Your task to perform on an android device: Show the shopping cart on amazon.com. Search for "dell xps" on amazon.com, select the first entry, and add it to the cart. Image 0: 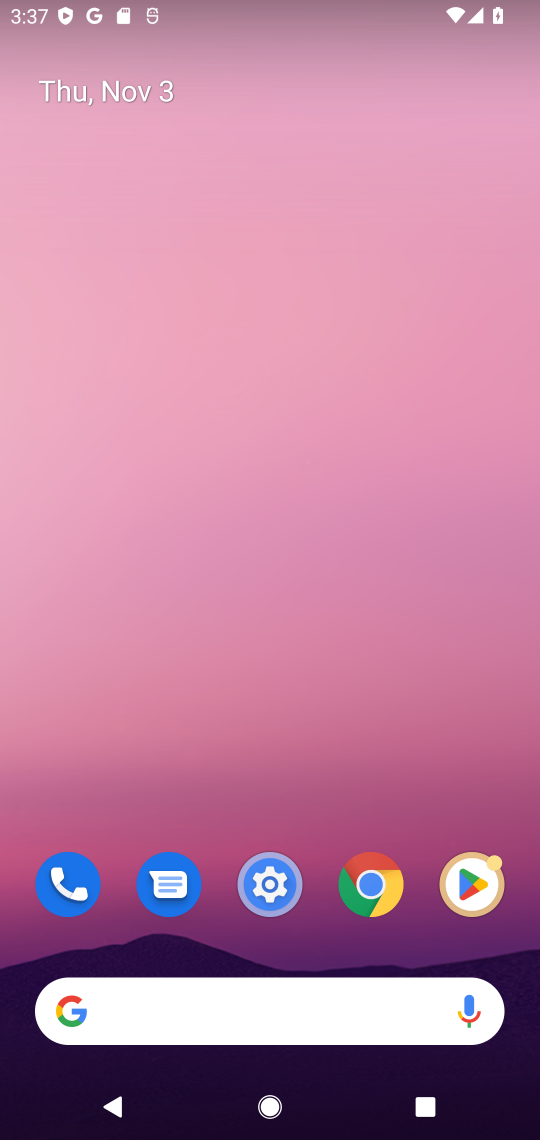
Step 0: press home button
Your task to perform on an android device: Show the shopping cart on amazon.com. Search for "dell xps" on amazon.com, select the first entry, and add it to the cart. Image 1: 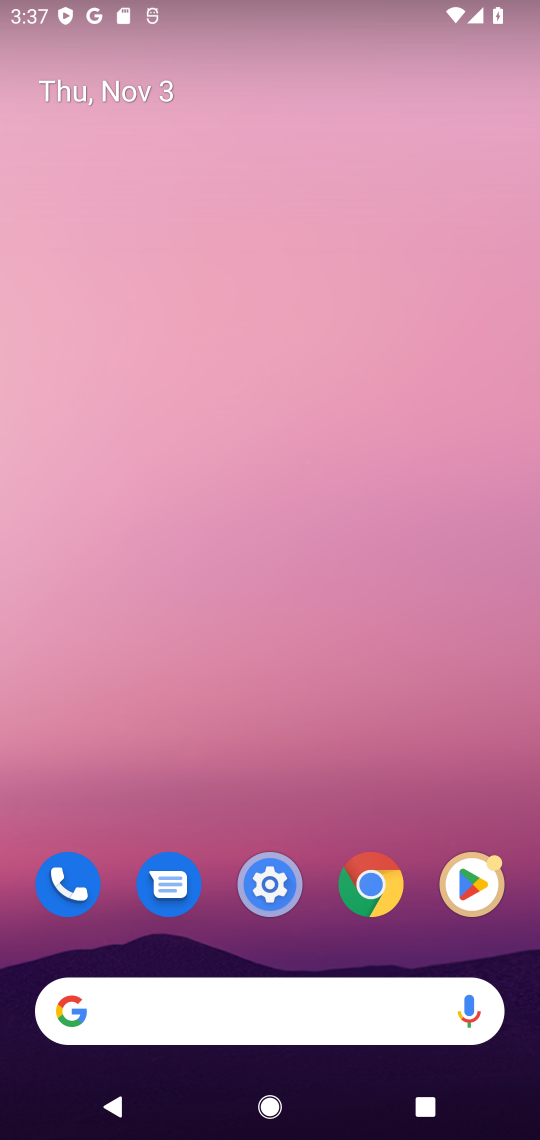
Step 1: click (102, 1006)
Your task to perform on an android device: Show the shopping cart on amazon.com. Search for "dell xps" on amazon.com, select the first entry, and add it to the cart. Image 2: 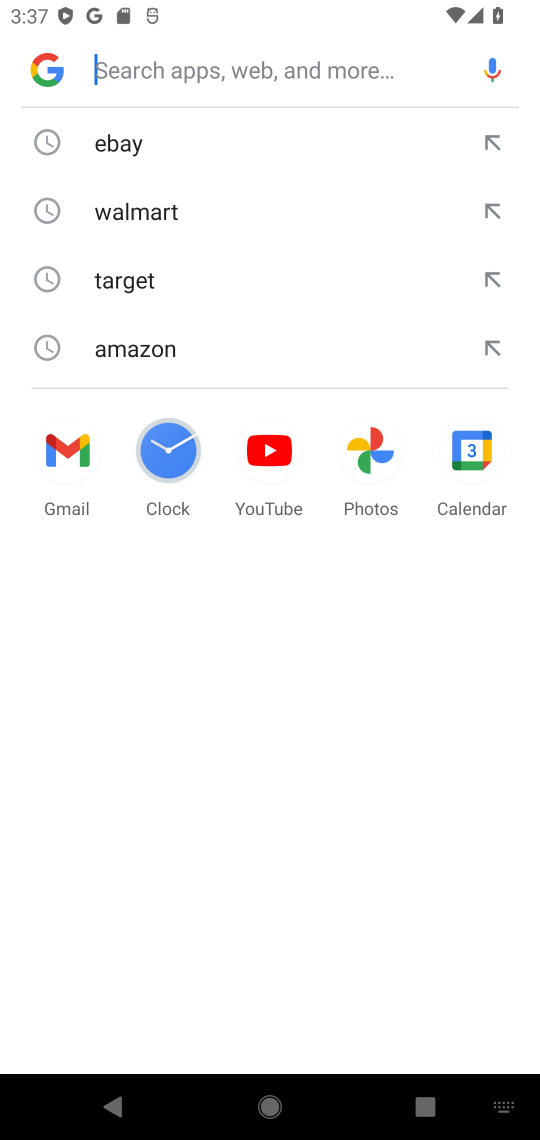
Step 2: type " amazon.com"
Your task to perform on an android device: Show the shopping cart on amazon.com. Search for "dell xps" on amazon.com, select the first entry, and add it to the cart. Image 3: 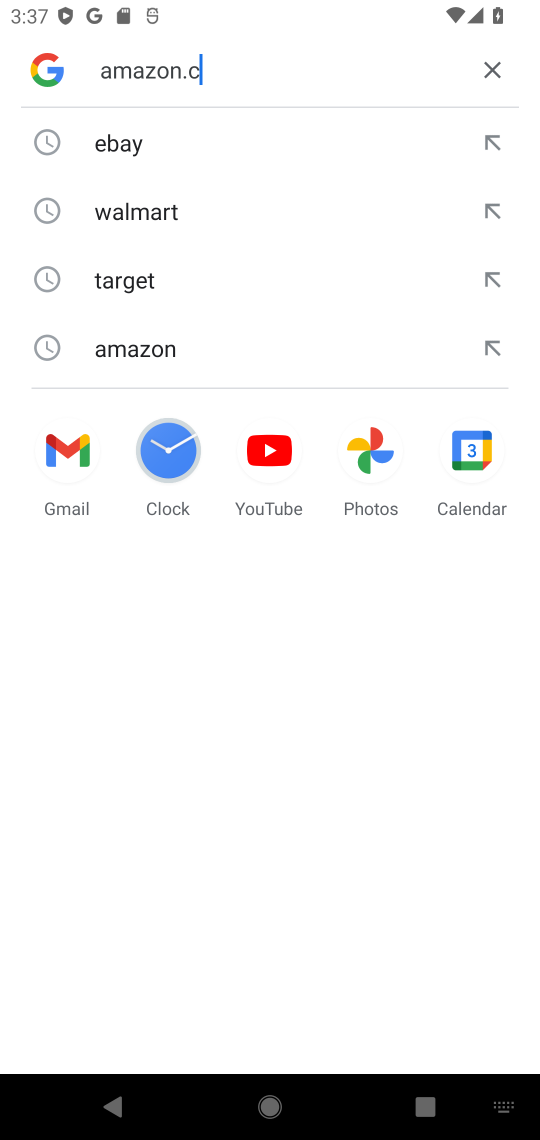
Step 3: press enter
Your task to perform on an android device: Show the shopping cart on amazon.com. Search for "dell xps" on amazon.com, select the first entry, and add it to the cart. Image 4: 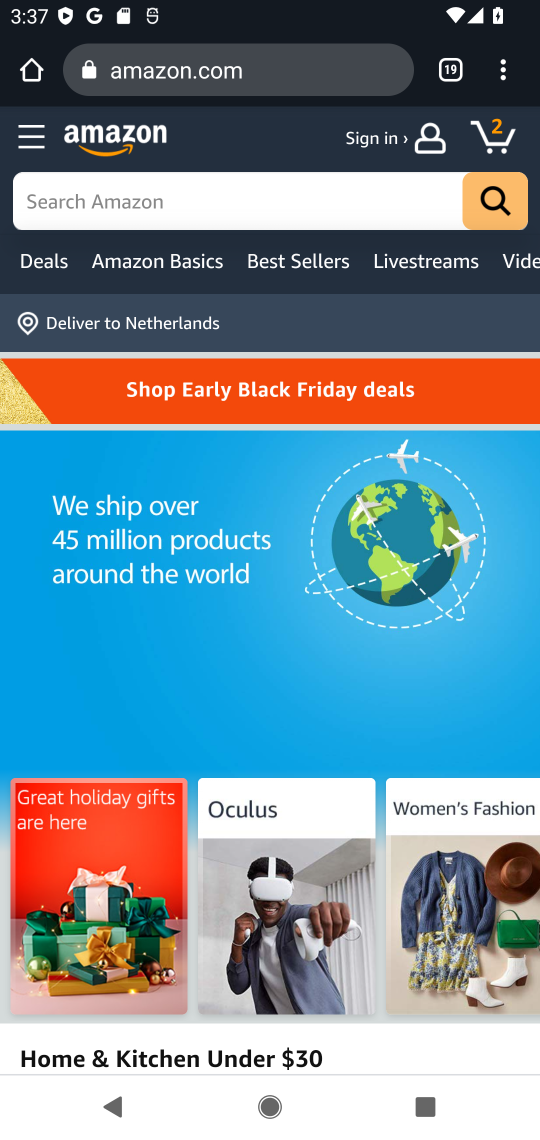
Step 4: click (492, 133)
Your task to perform on an android device: Show the shopping cart on amazon.com. Search for "dell xps" on amazon.com, select the first entry, and add it to the cart. Image 5: 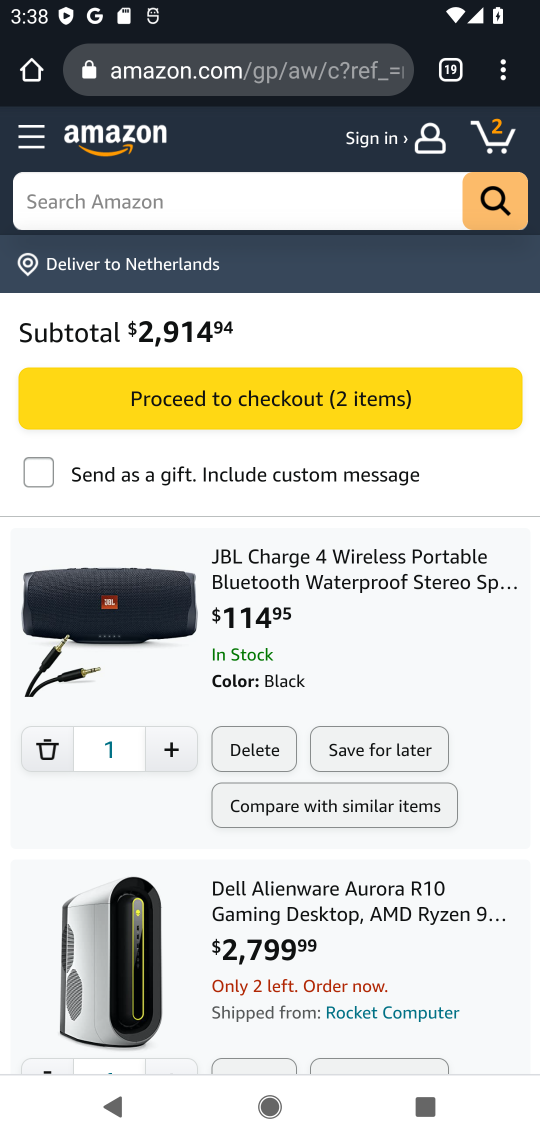
Step 5: click (56, 201)
Your task to perform on an android device: Show the shopping cart on amazon.com. Search for "dell xps" on amazon.com, select the first entry, and add it to the cart. Image 6: 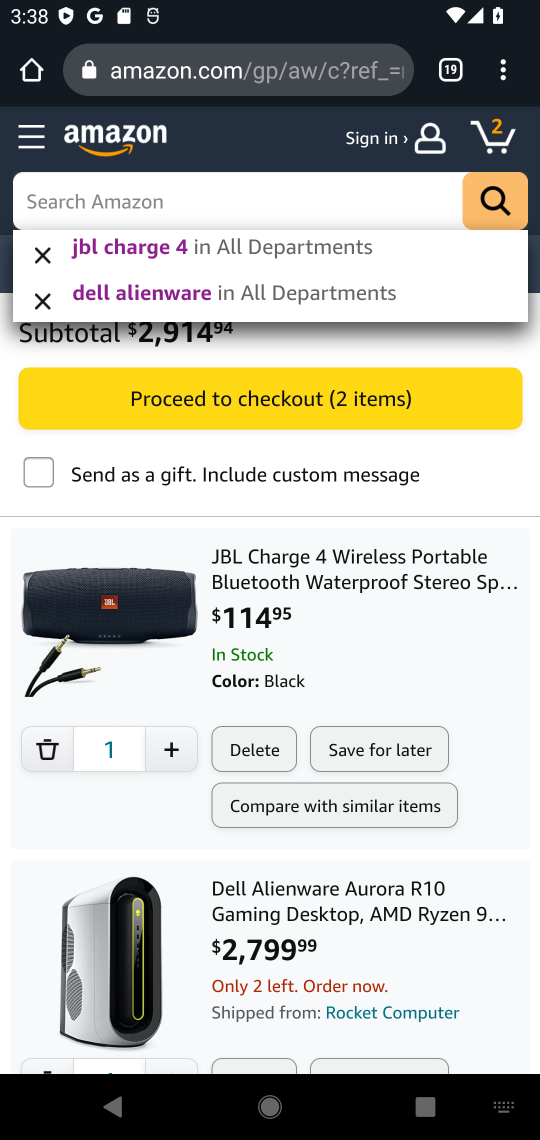
Step 6: type "dell xps"
Your task to perform on an android device: Show the shopping cart on amazon.com. Search for "dell xps" on amazon.com, select the first entry, and add it to the cart. Image 7: 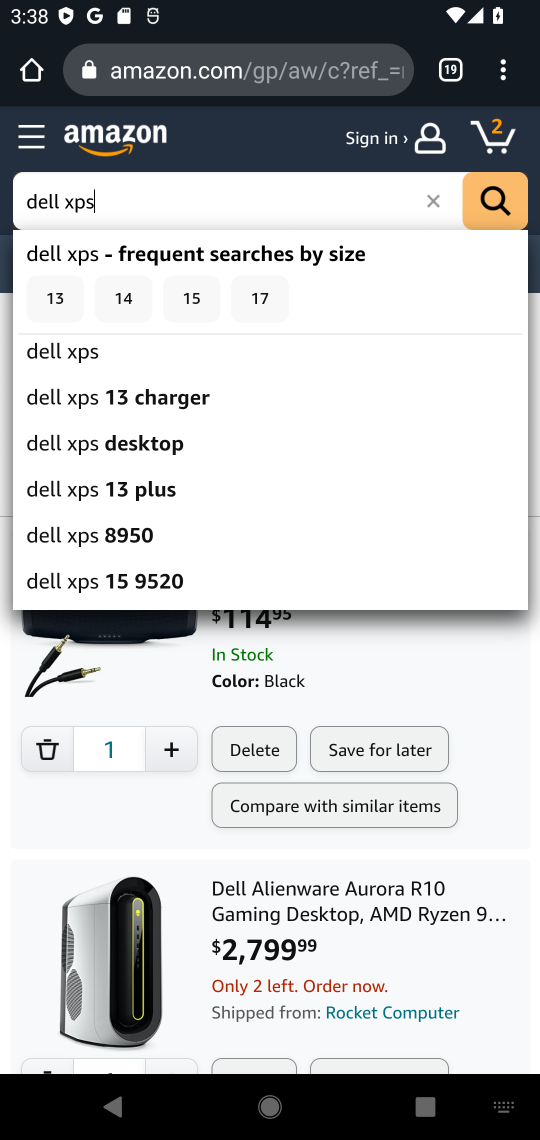
Step 7: click (489, 196)
Your task to perform on an android device: Show the shopping cart on amazon.com. Search for "dell xps" on amazon.com, select the first entry, and add it to the cart. Image 8: 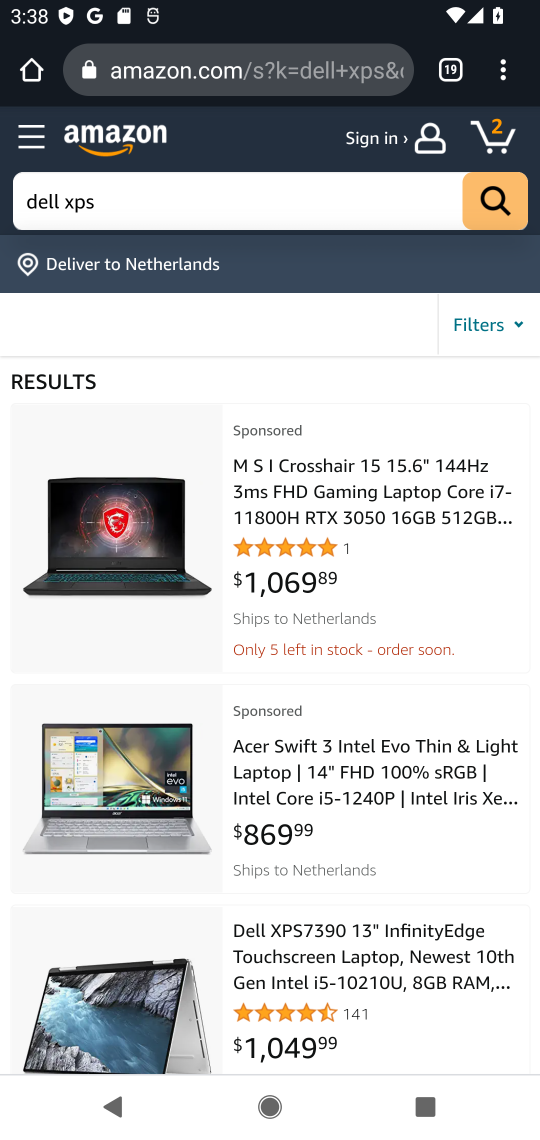
Step 8: drag from (364, 954) to (376, 515)
Your task to perform on an android device: Show the shopping cart on amazon.com. Search for "dell xps" on amazon.com, select the first entry, and add it to the cart. Image 9: 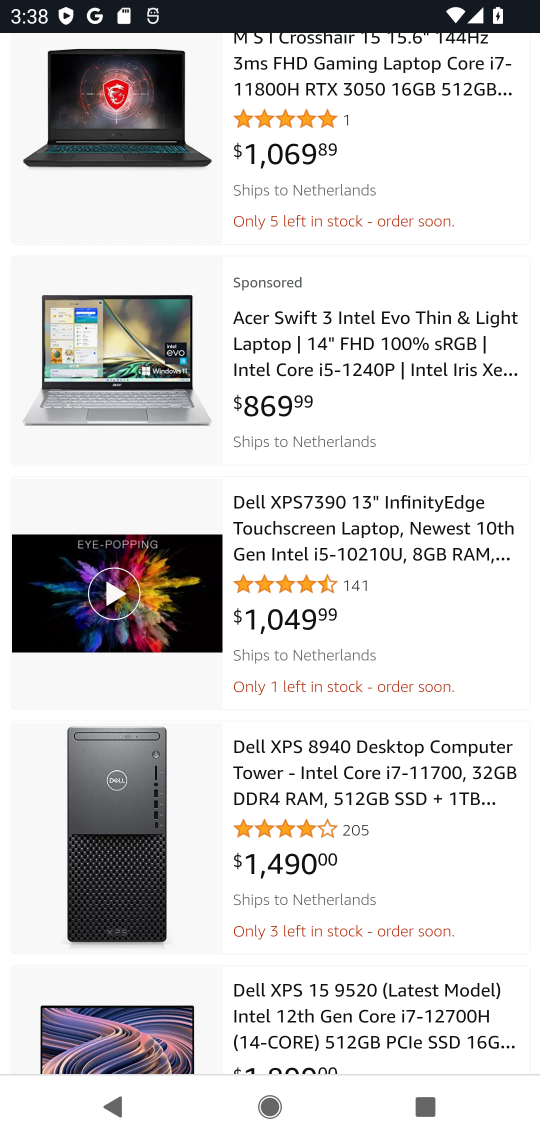
Step 9: click (330, 550)
Your task to perform on an android device: Show the shopping cart on amazon.com. Search for "dell xps" on amazon.com, select the first entry, and add it to the cart. Image 10: 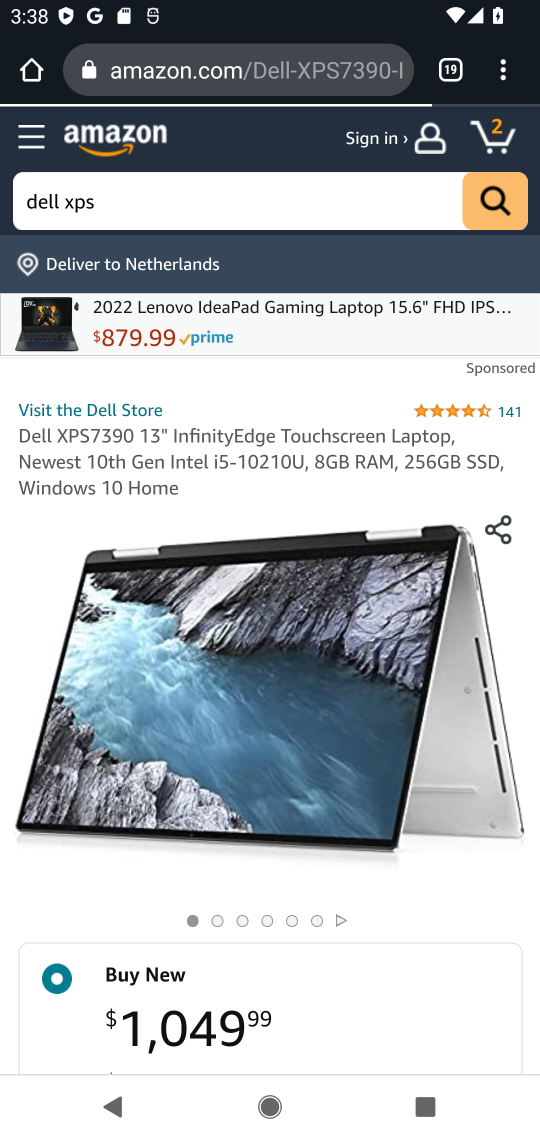
Step 10: drag from (369, 886) to (406, 509)
Your task to perform on an android device: Show the shopping cart on amazon.com. Search for "dell xps" on amazon.com, select the first entry, and add it to the cart. Image 11: 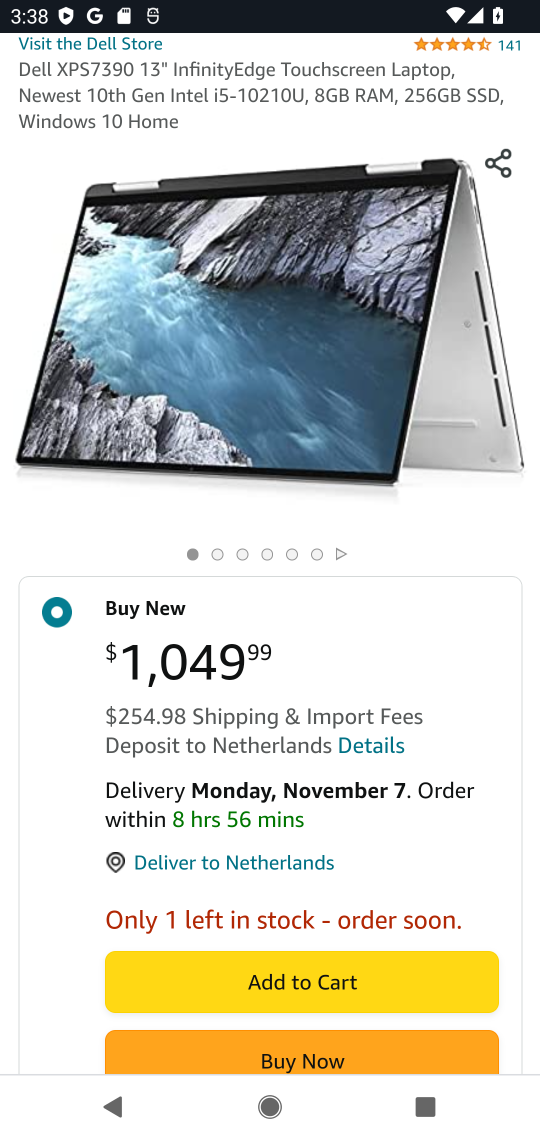
Step 11: drag from (384, 824) to (425, 450)
Your task to perform on an android device: Show the shopping cart on amazon.com. Search for "dell xps" on amazon.com, select the first entry, and add it to the cart. Image 12: 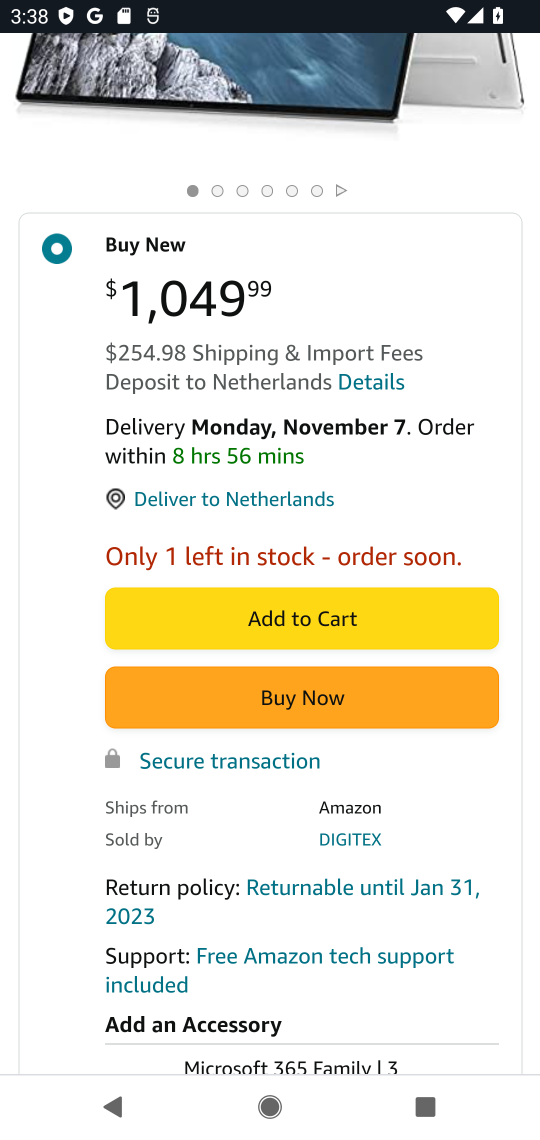
Step 12: click (295, 627)
Your task to perform on an android device: Show the shopping cart on amazon.com. Search for "dell xps" on amazon.com, select the first entry, and add it to the cart. Image 13: 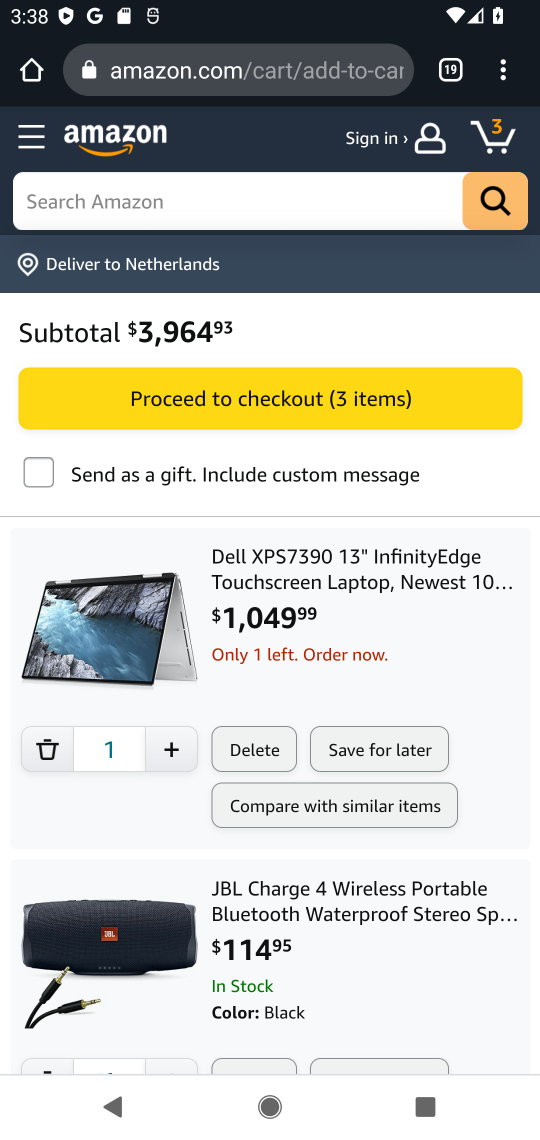
Step 13: task complete